Your task to perform on an android device: check android version Image 0: 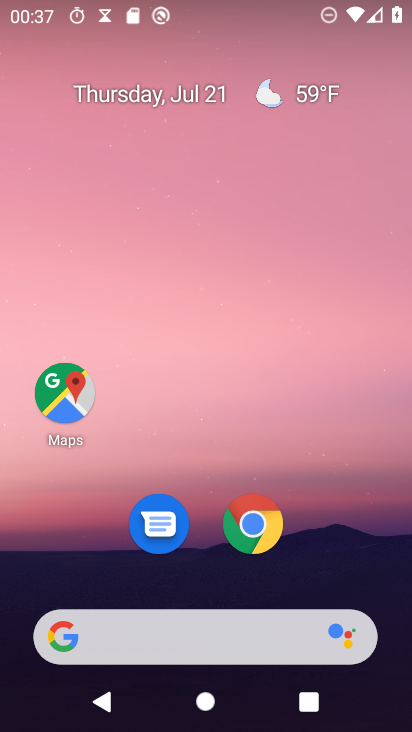
Step 0: press home button
Your task to perform on an android device: check android version Image 1: 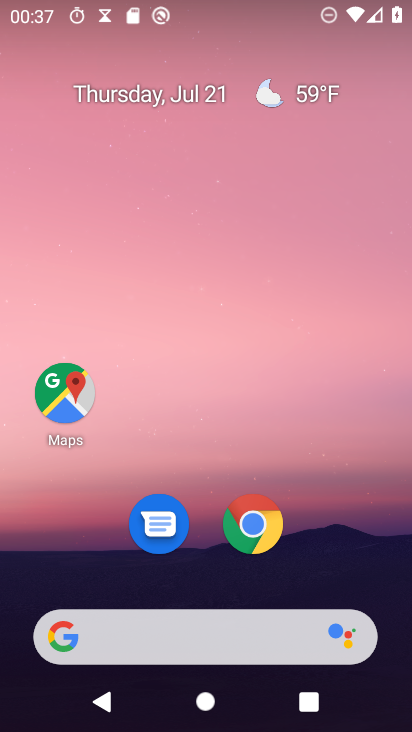
Step 1: drag from (164, 652) to (335, 58)
Your task to perform on an android device: check android version Image 2: 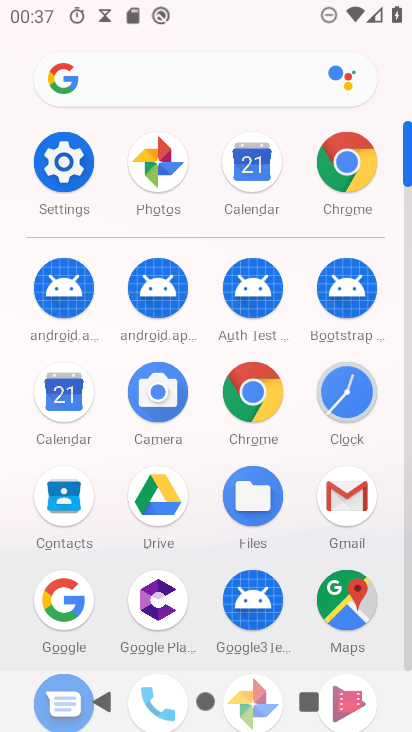
Step 2: click (70, 168)
Your task to perform on an android device: check android version Image 3: 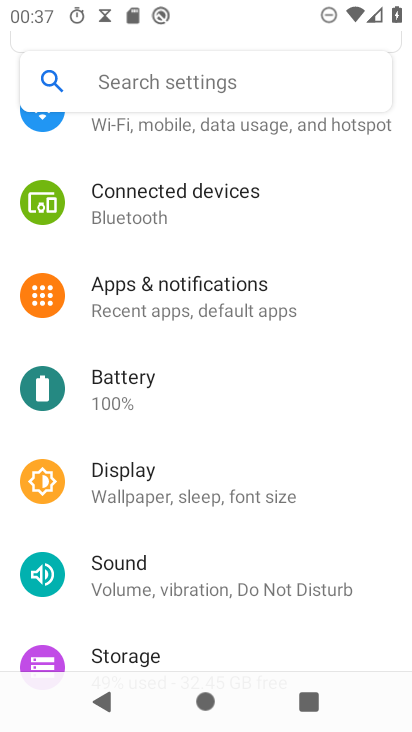
Step 3: drag from (208, 640) to (356, 13)
Your task to perform on an android device: check android version Image 4: 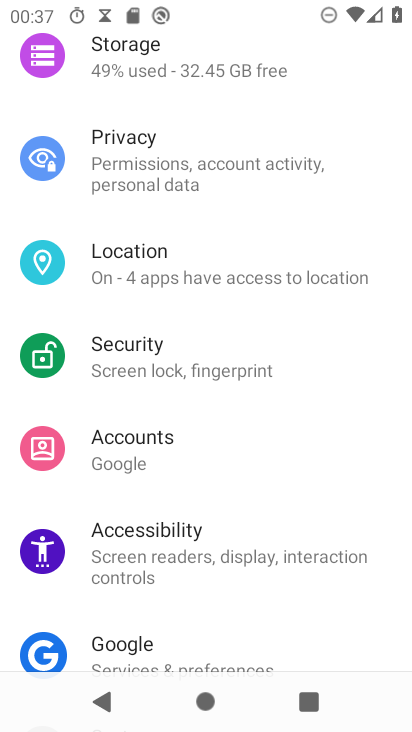
Step 4: drag from (180, 611) to (381, 1)
Your task to perform on an android device: check android version Image 5: 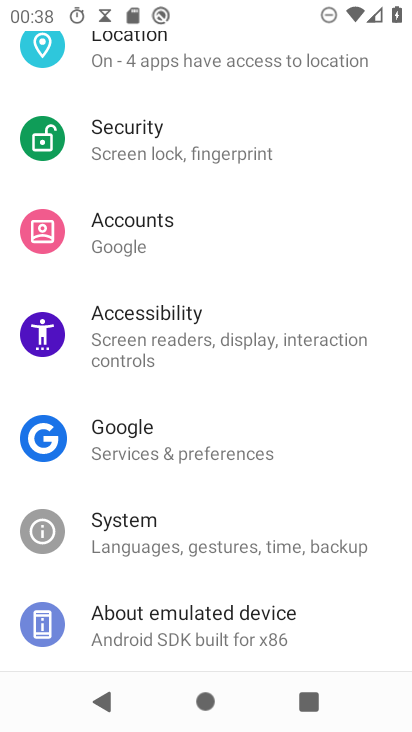
Step 5: click (173, 633)
Your task to perform on an android device: check android version Image 6: 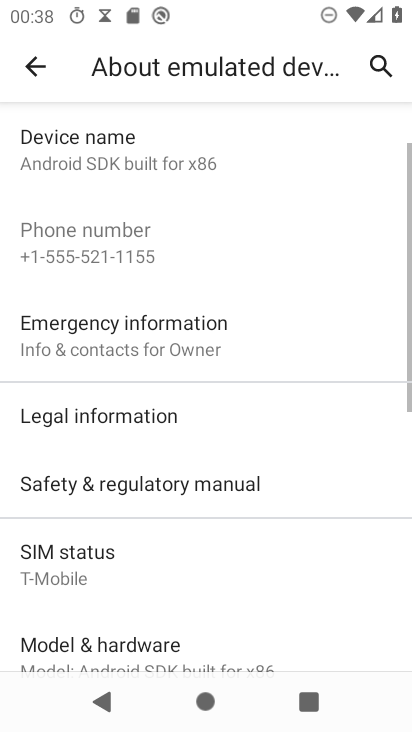
Step 6: drag from (201, 634) to (357, 43)
Your task to perform on an android device: check android version Image 7: 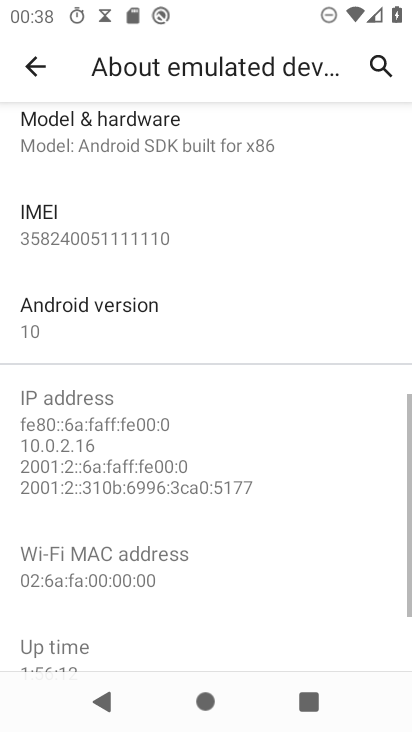
Step 7: click (94, 299)
Your task to perform on an android device: check android version Image 8: 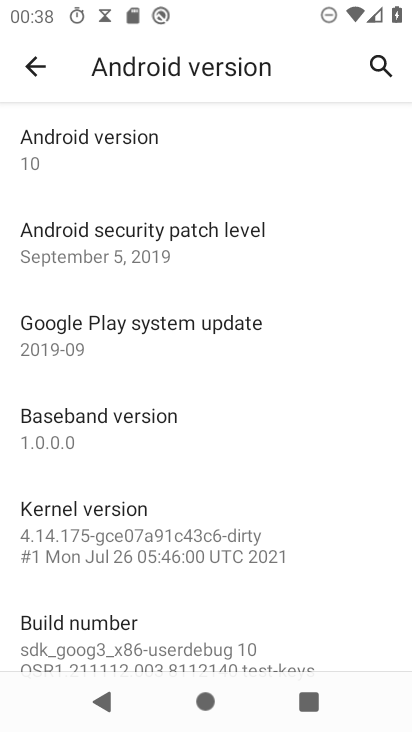
Step 8: task complete